Your task to perform on an android device: Open Google Maps and go to "Timeline" Image 0: 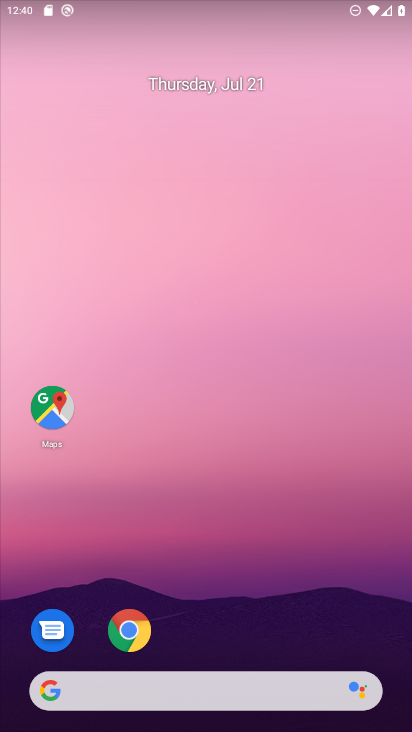
Step 0: drag from (403, 704) to (356, 158)
Your task to perform on an android device: Open Google Maps and go to "Timeline" Image 1: 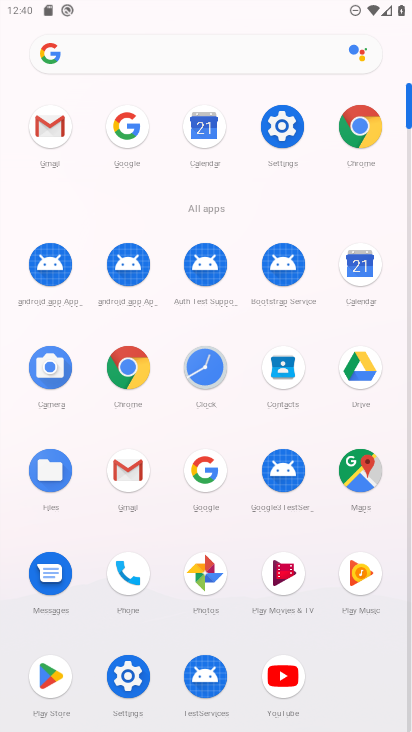
Step 1: click (374, 472)
Your task to perform on an android device: Open Google Maps and go to "Timeline" Image 2: 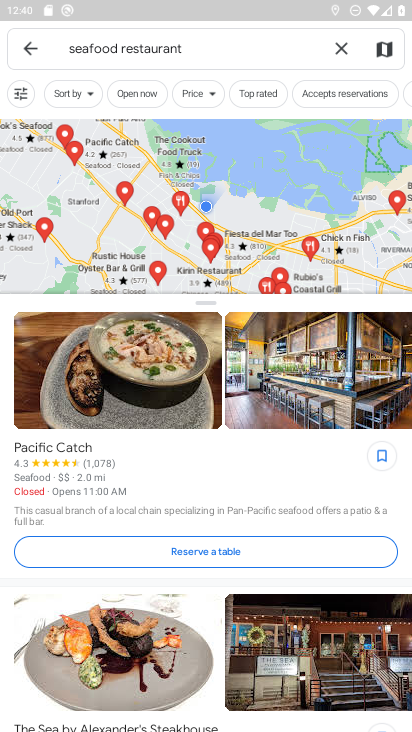
Step 2: click (28, 54)
Your task to perform on an android device: Open Google Maps and go to "Timeline" Image 3: 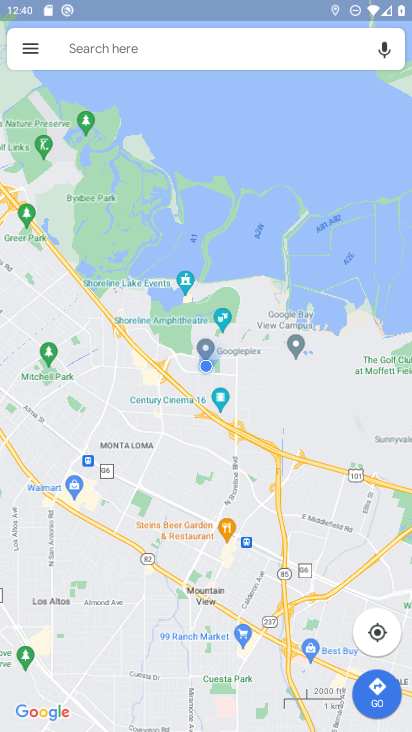
Step 3: click (24, 52)
Your task to perform on an android device: Open Google Maps and go to "Timeline" Image 4: 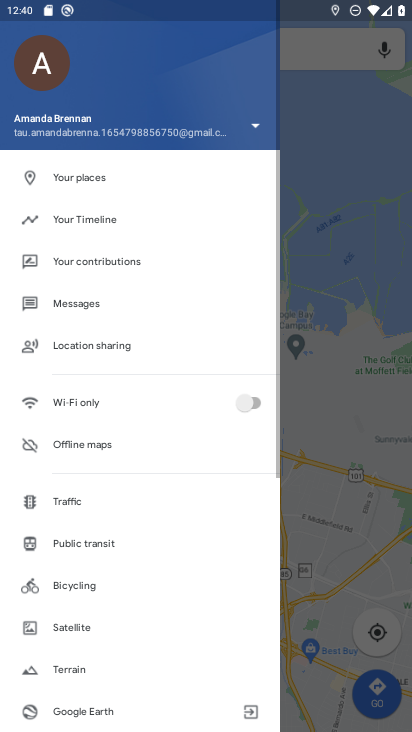
Step 4: click (74, 213)
Your task to perform on an android device: Open Google Maps and go to "Timeline" Image 5: 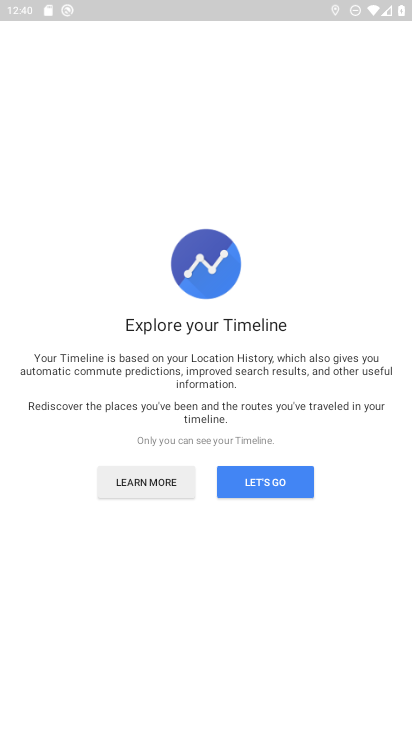
Step 5: click (260, 487)
Your task to perform on an android device: Open Google Maps and go to "Timeline" Image 6: 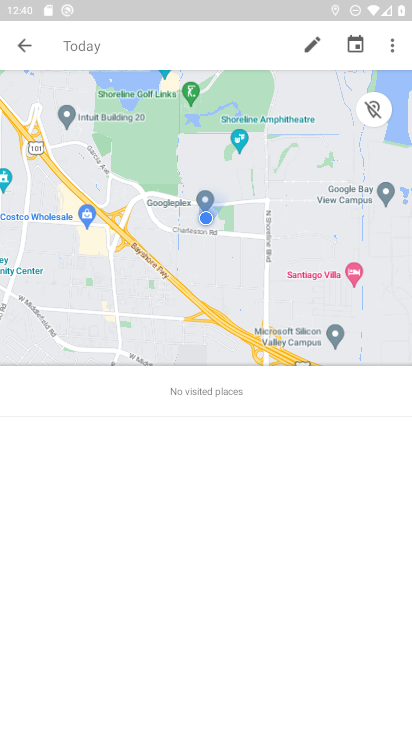
Step 6: task complete